Your task to perform on an android device: Play the last video I watched on Youtube Image 0: 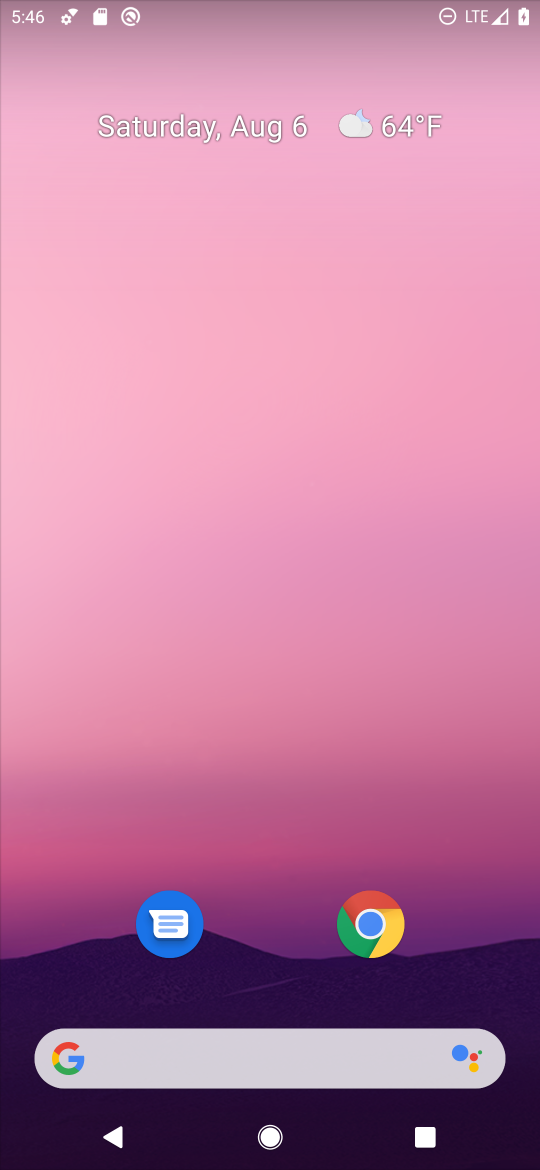
Step 0: drag from (237, 934) to (267, 359)
Your task to perform on an android device: Play the last video I watched on Youtube Image 1: 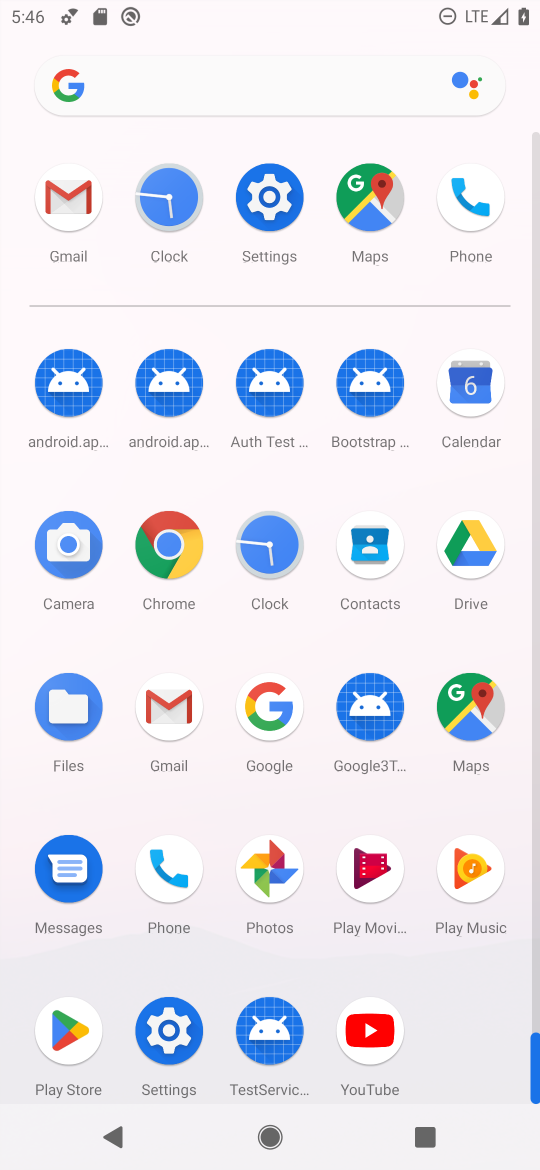
Step 1: click (370, 1020)
Your task to perform on an android device: Play the last video I watched on Youtube Image 2: 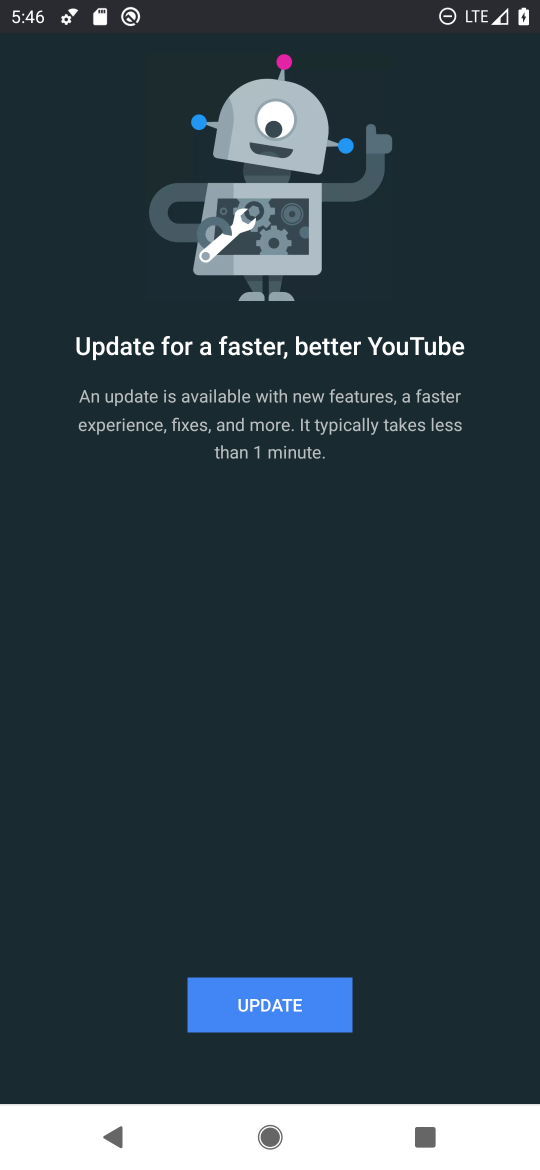
Step 2: click (275, 1001)
Your task to perform on an android device: Play the last video I watched on Youtube Image 3: 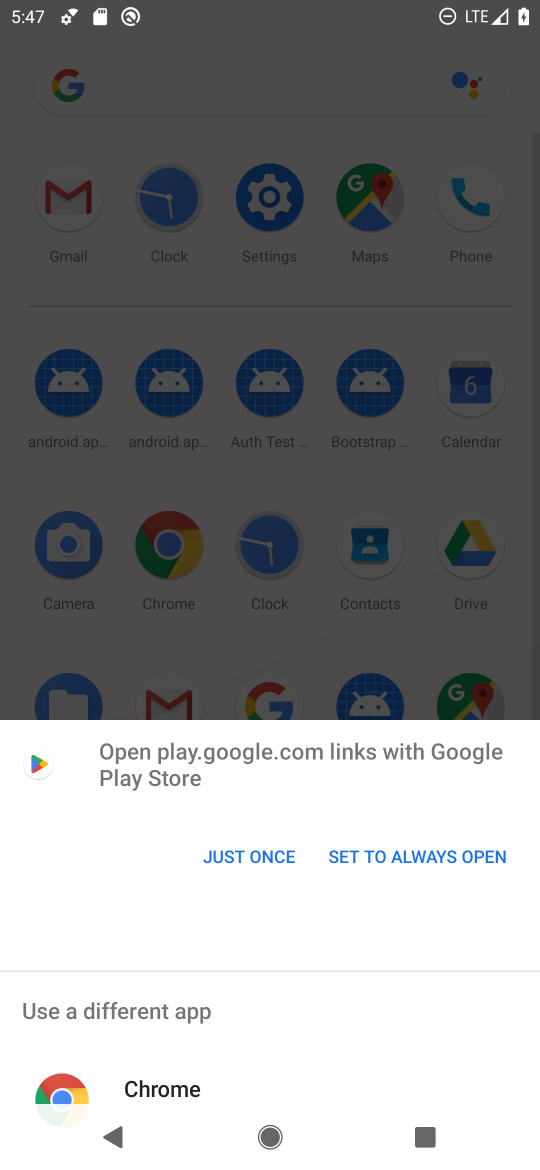
Step 3: click (243, 850)
Your task to perform on an android device: Play the last video I watched on Youtube Image 4: 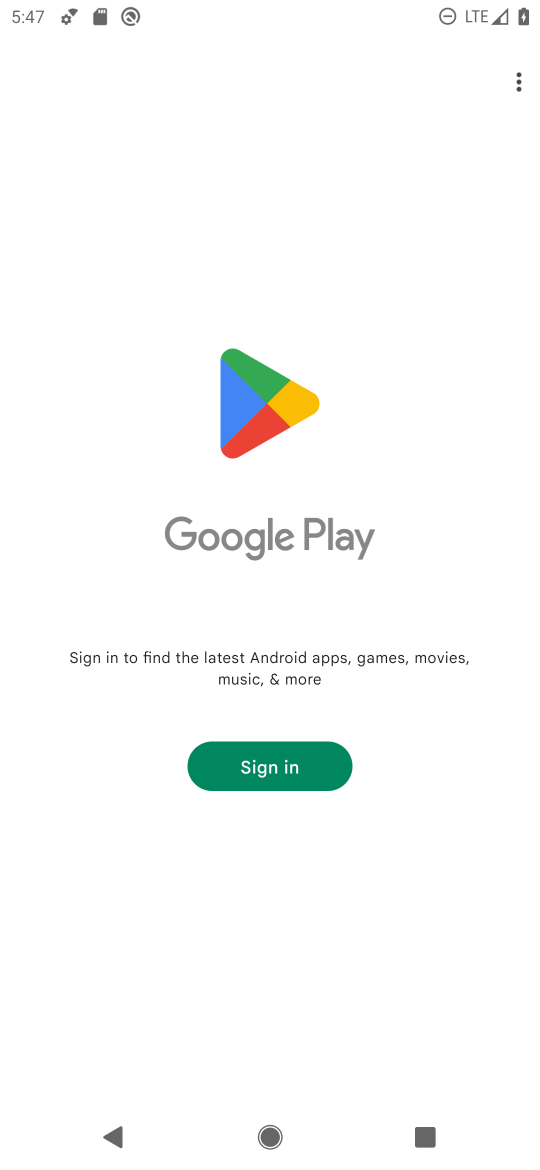
Step 4: click (265, 772)
Your task to perform on an android device: Play the last video I watched on Youtube Image 5: 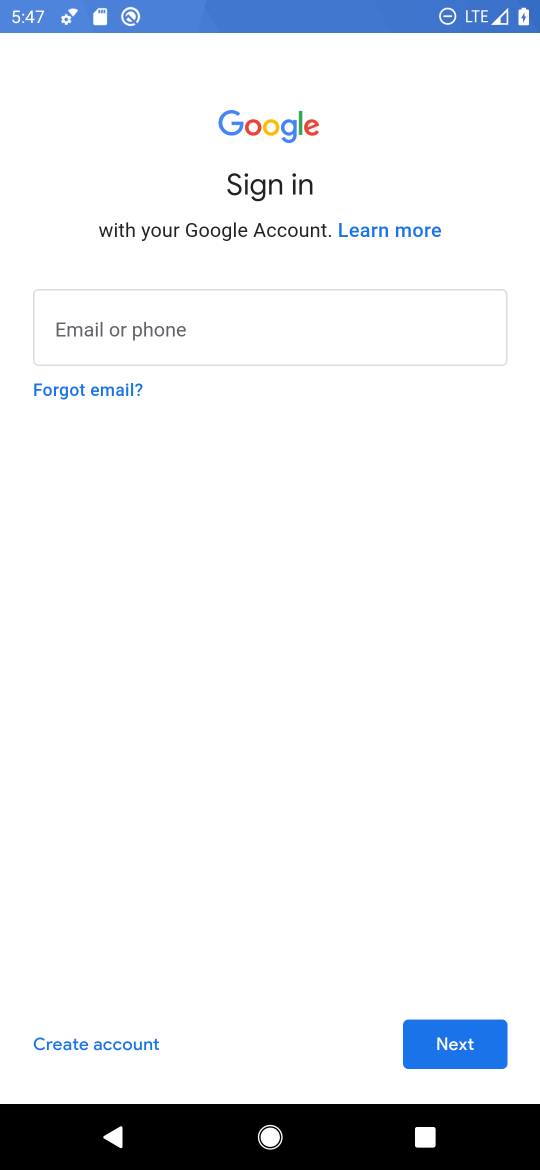
Step 5: task complete